Your task to perform on an android device: Open Google Chrome and click the shortcut for Amazon.com Image 0: 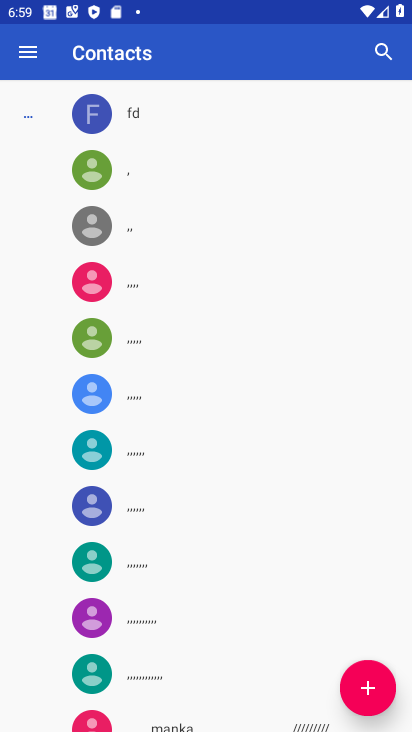
Step 0: press home button
Your task to perform on an android device: Open Google Chrome and click the shortcut for Amazon.com Image 1: 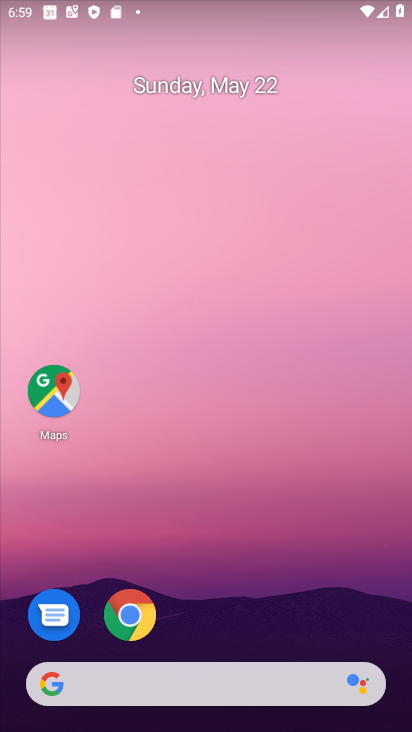
Step 1: click (126, 608)
Your task to perform on an android device: Open Google Chrome and click the shortcut for Amazon.com Image 2: 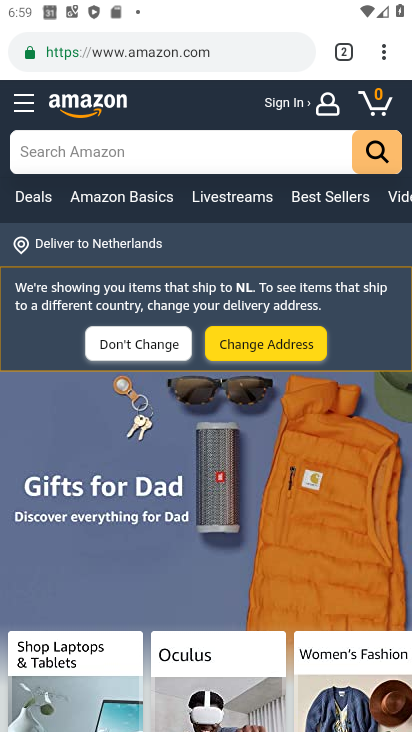
Step 2: task complete